Your task to perform on an android device: See recent photos Image 0: 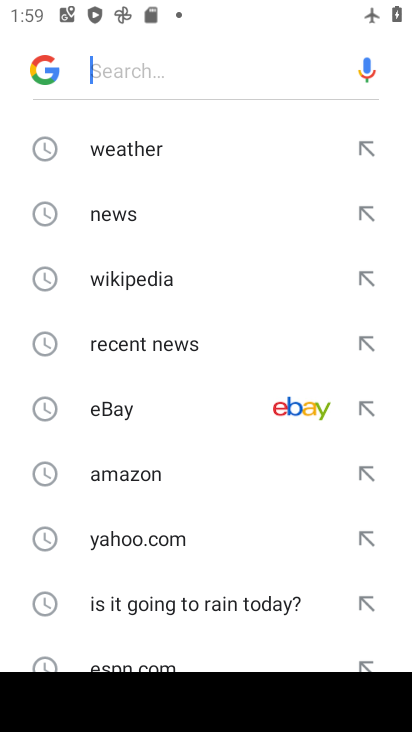
Step 0: press home button
Your task to perform on an android device: See recent photos Image 1: 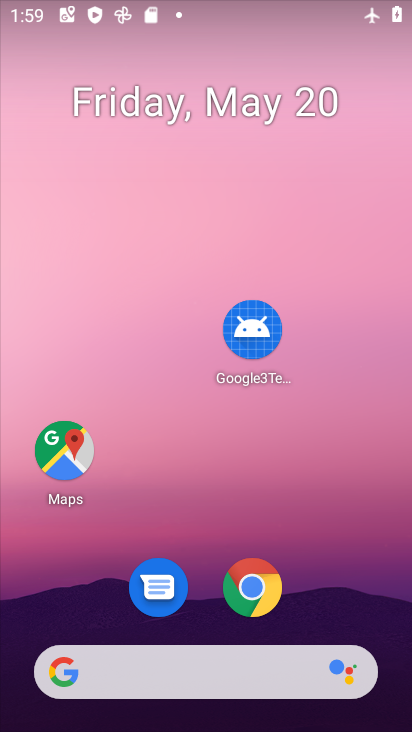
Step 1: drag from (335, 548) to (291, 151)
Your task to perform on an android device: See recent photos Image 2: 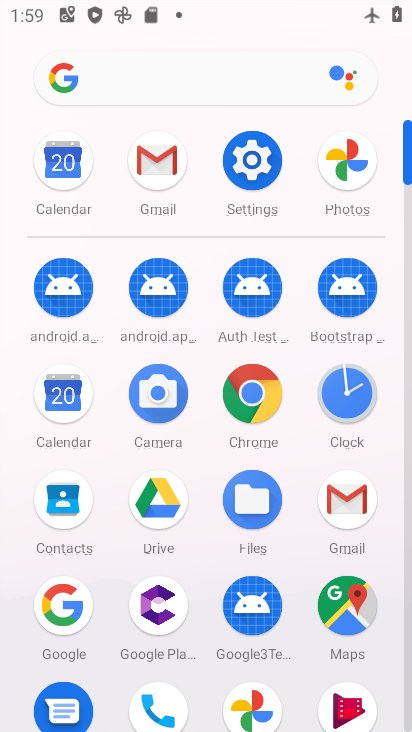
Step 2: click (351, 155)
Your task to perform on an android device: See recent photos Image 3: 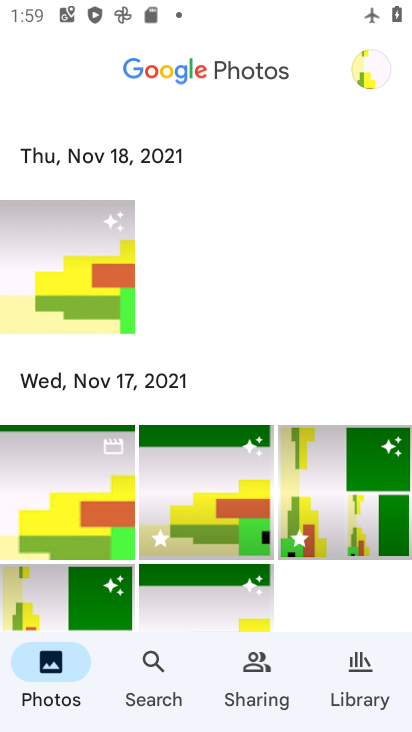
Step 3: task complete